Your task to perform on an android device: open device folders in google photos Image 0: 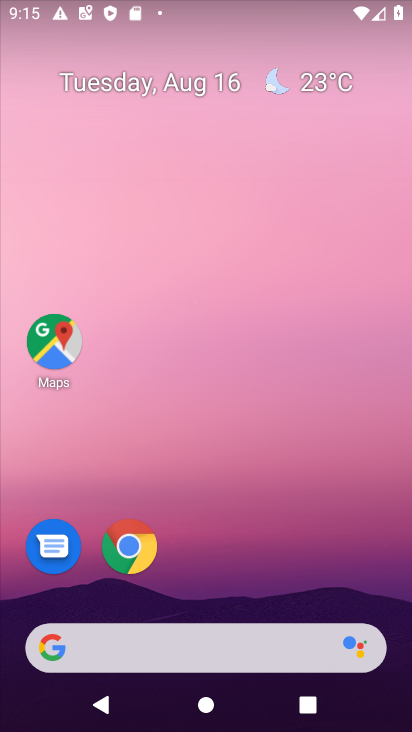
Step 0: drag from (259, 510) to (306, 7)
Your task to perform on an android device: open device folders in google photos Image 1: 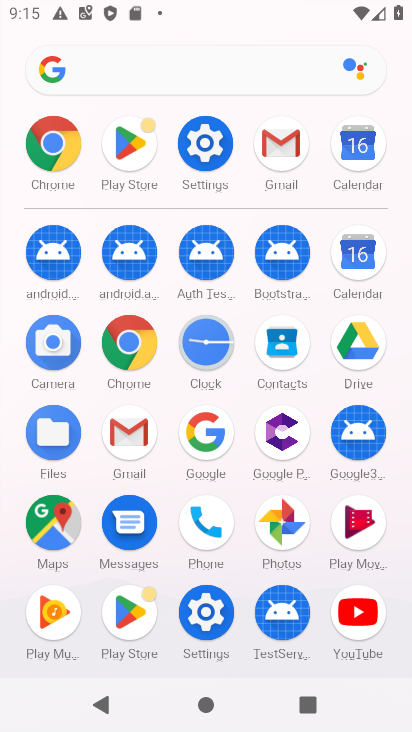
Step 1: click (281, 523)
Your task to perform on an android device: open device folders in google photos Image 2: 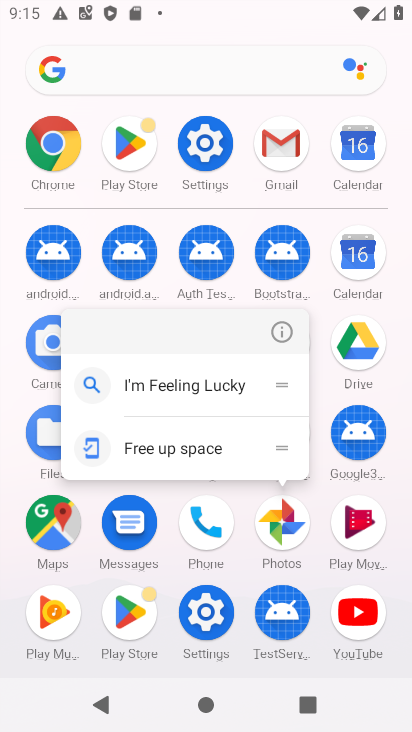
Step 2: click (281, 521)
Your task to perform on an android device: open device folders in google photos Image 3: 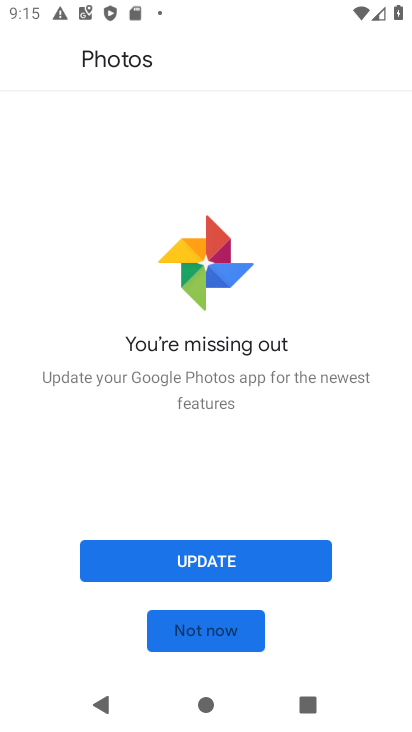
Step 3: click (229, 629)
Your task to perform on an android device: open device folders in google photos Image 4: 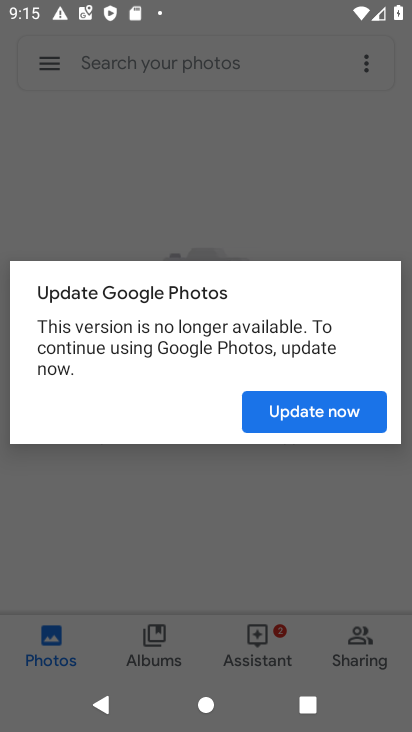
Step 4: click (322, 415)
Your task to perform on an android device: open device folders in google photos Image 5: 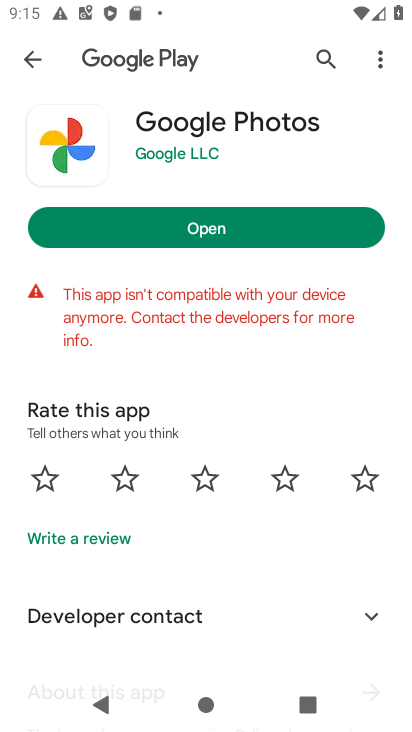
Step 5: click (335, 236)
Your task to perform on an android device: open device folders in google photos Image 6: 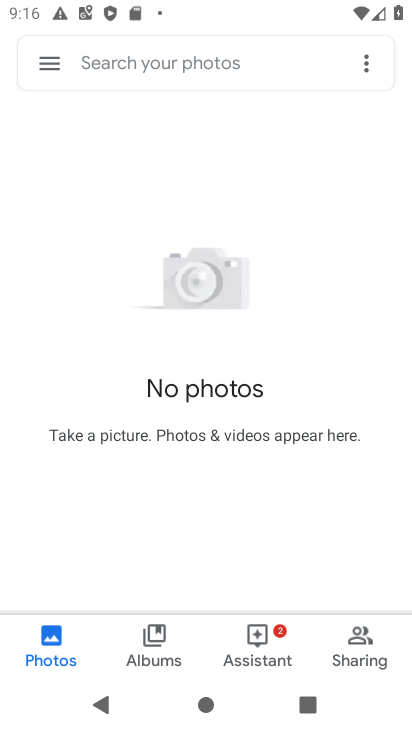
Step 6: click (51, 64)
Your task to perform on an android device: open device folders in google photos Image 7: 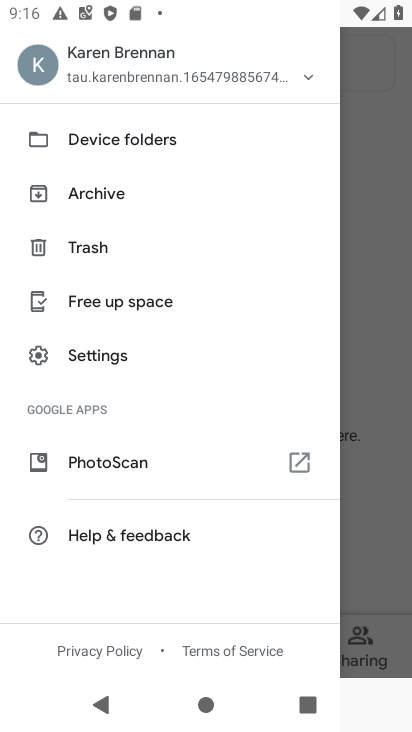
Step 7: click (101, 139)
Your task to perform on an android device: open device folders in google photos Image 8: 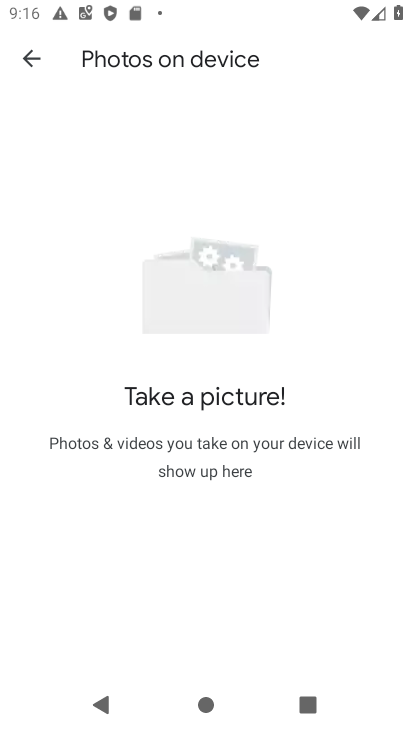
Step 8: task complete